Your task to perform on an android device: Open the calendar app, open the side menu, and click the "Day" option Image 0: 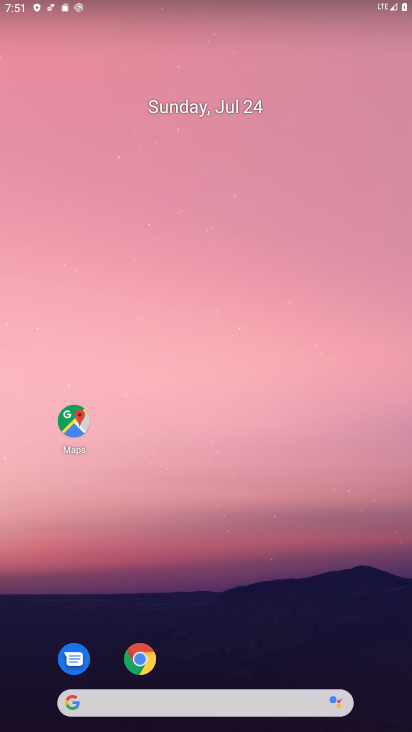
Step 0: drag from (197, 692) to (219, 203)
Your task to perform on an android device: Open the calendar app, open the side menu, and click the "Day" option Image 1: 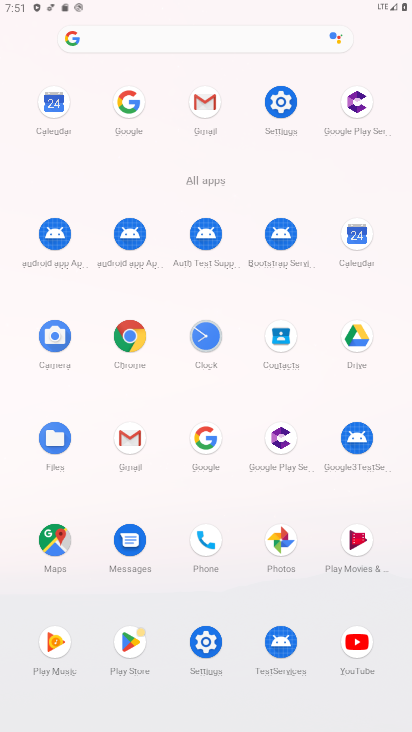
Step 1: click (359, 227)
Your task to perform on an android device: Open the calendar app, open the side menu, and click the "Day" option Image 2: 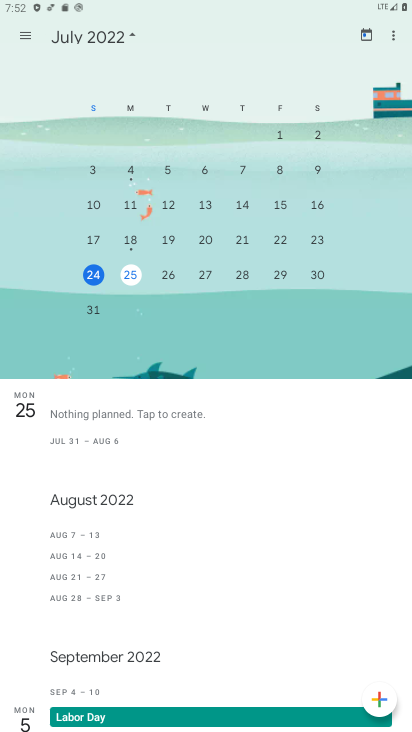
Step 2: click (23, 32)
Your task to perform on an android device: Open the calendar app, open the side menu, and click the "Day" option Image 3: 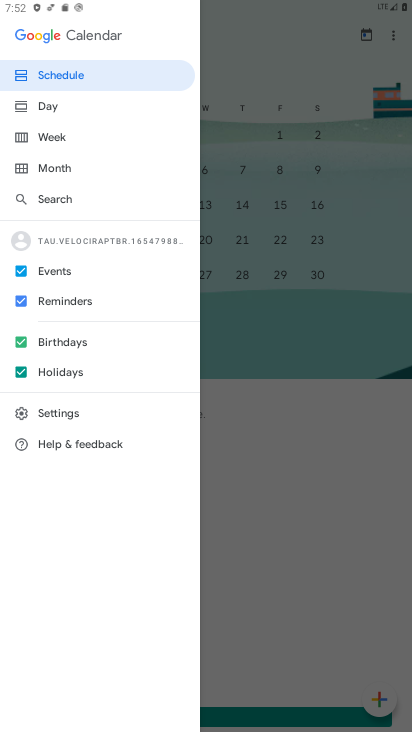
Step 3: click (45, 102)
Your task to perform on an android device: Open the calendar app, open the side menu, and click the "Day" option Image 4: 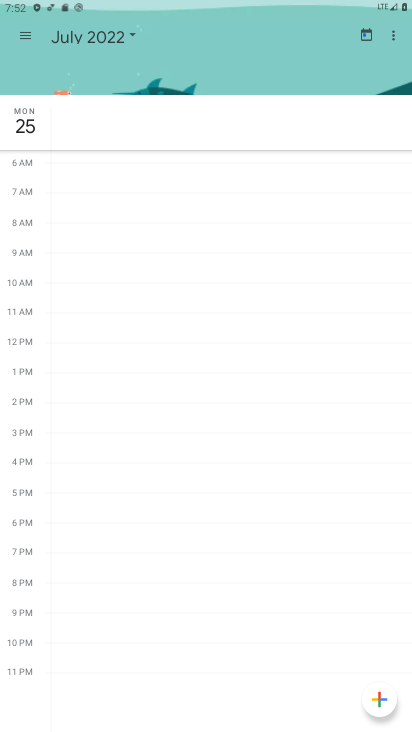
Step 4: task complete